Your task to perform on an android device: check google app version Image 0: 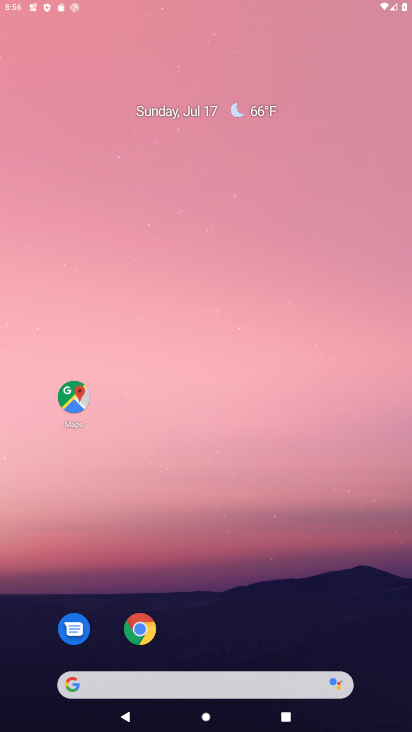
Step 0: press home button
Your task to perform on an android device: check google app version Image 1: 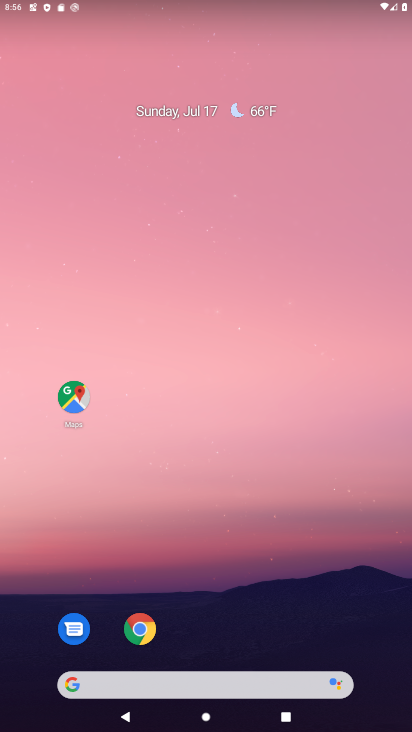
Step 1: drag from (225, 640) to (285, 6)
Your task to perform on an android device: check google app version Image 2: 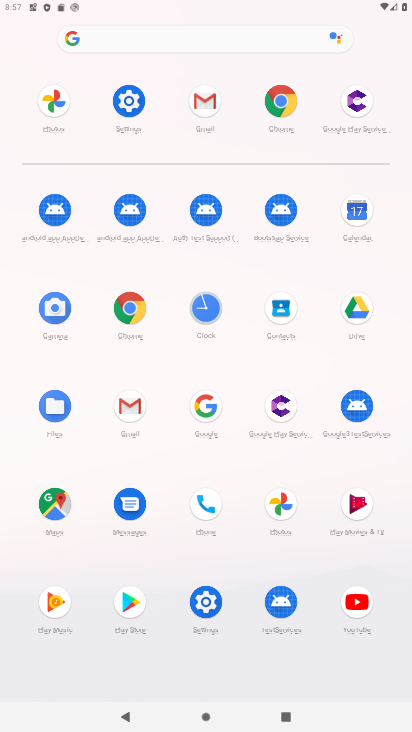
Step 2: click (208, 398)
Your task to perform on an android device: check google app version Image 3: 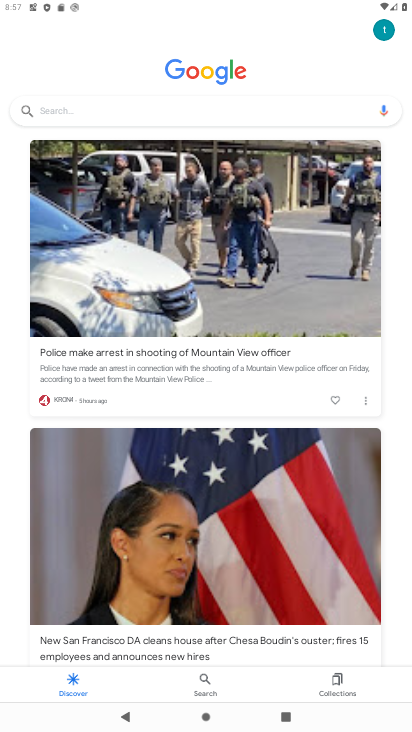
Step 3: click (376, 30)
Your task to perform on an android device: check google app version Image 4: 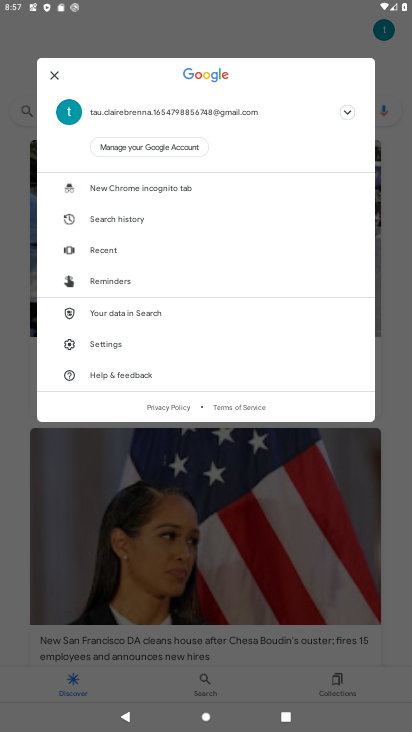
Step 4: click (129, 344)
Your task to perform on an android device: check google app version Image 5: 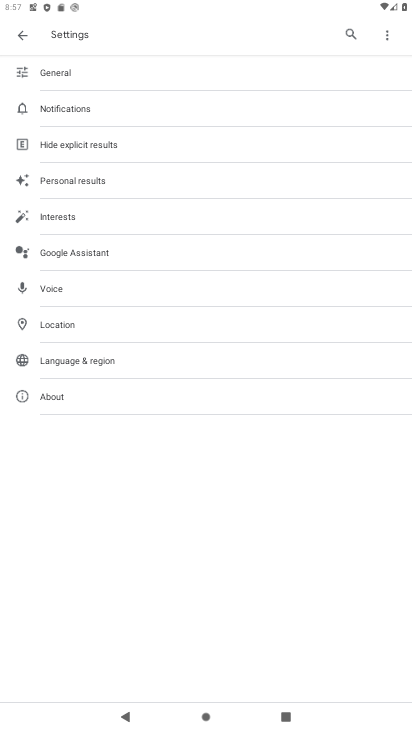
Step 5: click (67, 397)
Your task to perform on an android device: check google app version Image 6: 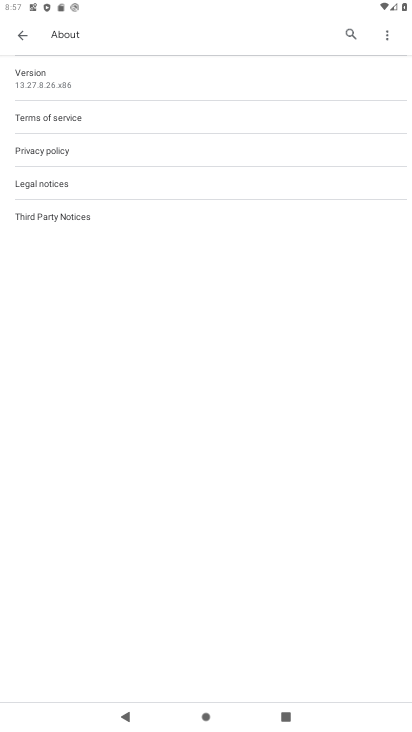
Step 6: task complete